Your task to perform on an android device: toggle improve location accuracy Image 0: 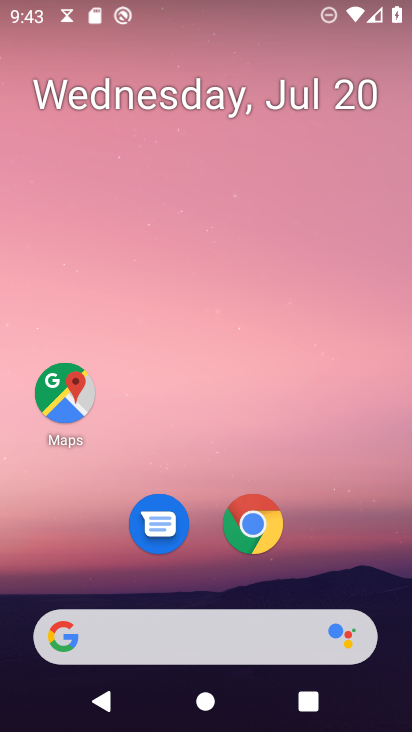
Step 0: press home button
Your task to perform on an android device: toggle improve location accuracy Image 1: 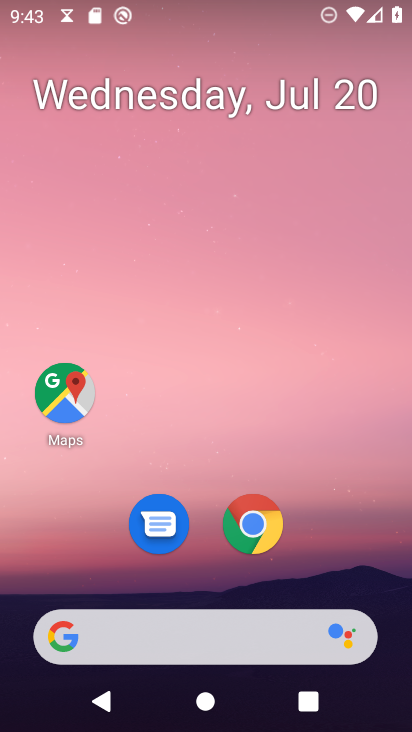
Step 1: drag from (161, 617) to (355, 4)
Your task to perform on an android device: toggle improve location accuracy Image 2: 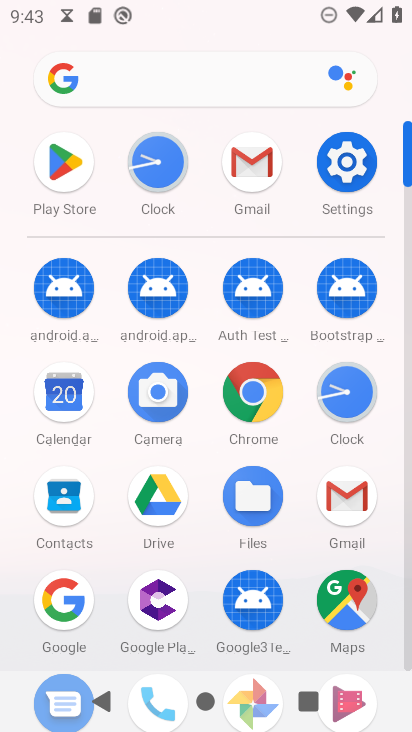
Step 2: click (342, 167)
Your task to perform on an android device: toggle improve location accuracy Image 3: 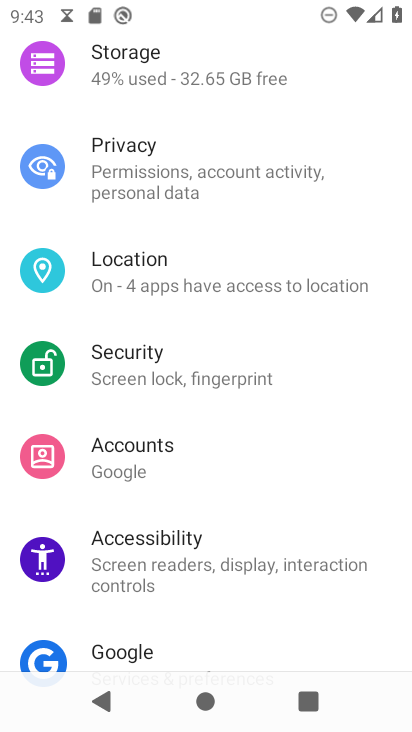
Step 3: click (155, 274)
Your task to perform on an android device: toggle improve location accuracy Image 4: 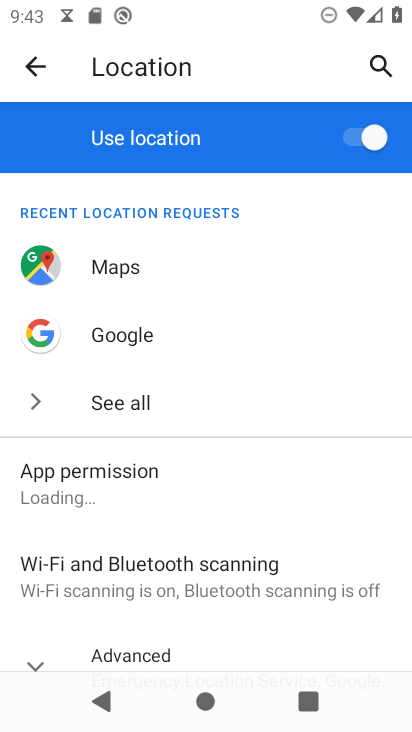
Step 4: drag from (186, 529) to (279, 117)
Your task to perform on an android device: toggle improve location accuracy Image 5: 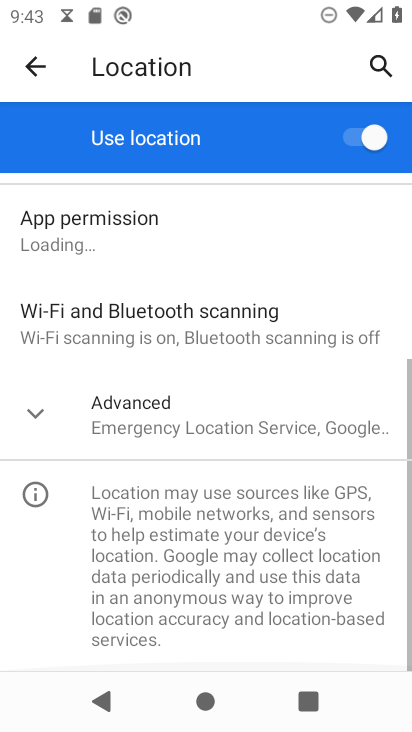
Step 5: click (100, 498)
Your task to perform on an android device: toggle improve location accuracy Image 6: 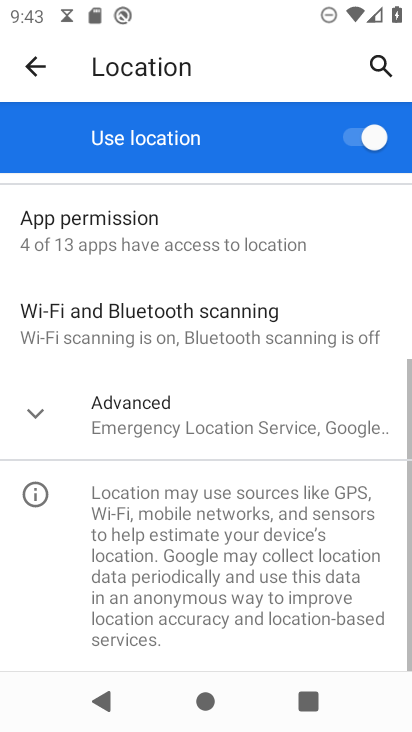
Step 6: click (125, 431)
Your task to perform on an android device: toggle improve location accuracy Image 7: 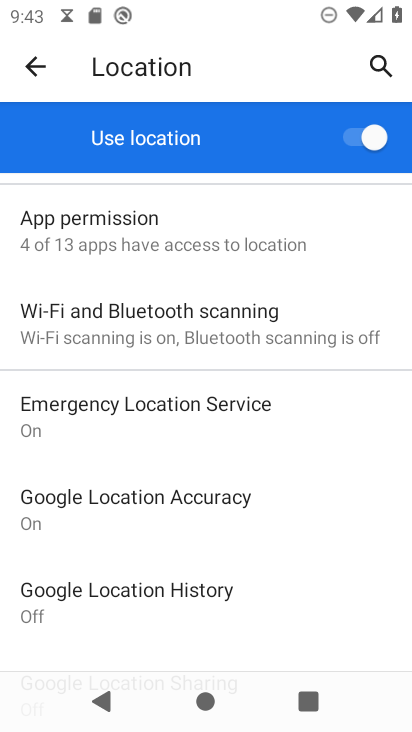
Step 7: click (178, 499)
Your task to perform on an android device: toggle improve location accuracy Image 8: 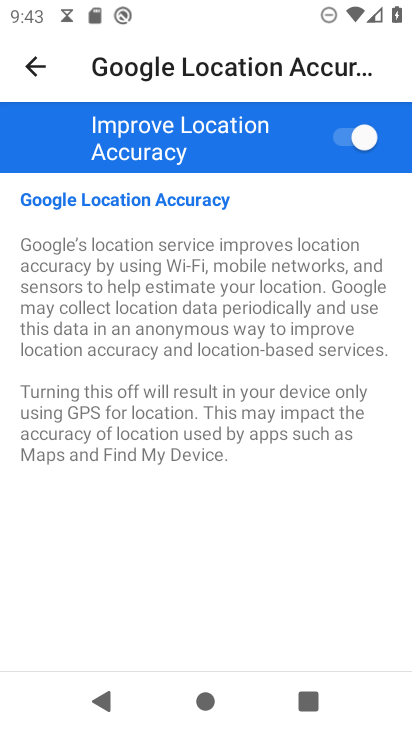
Step 8: click (349, 138)
Your task to perform on an android device: toggle improve location accuracy Image 9: 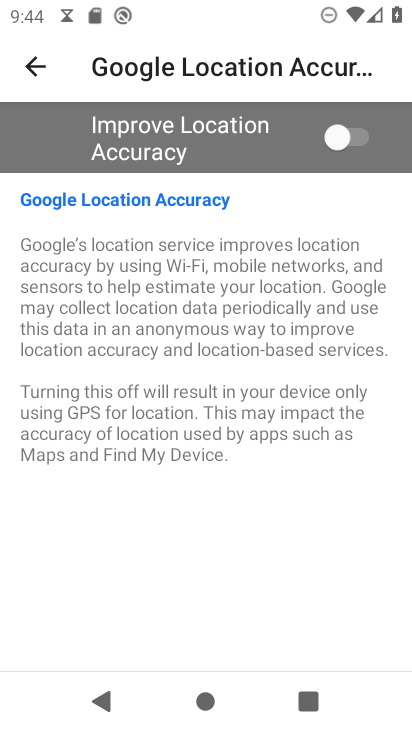
Step 9: task complete